Your task to perform on an android device: move a message to another label in the gmail app Image 0: 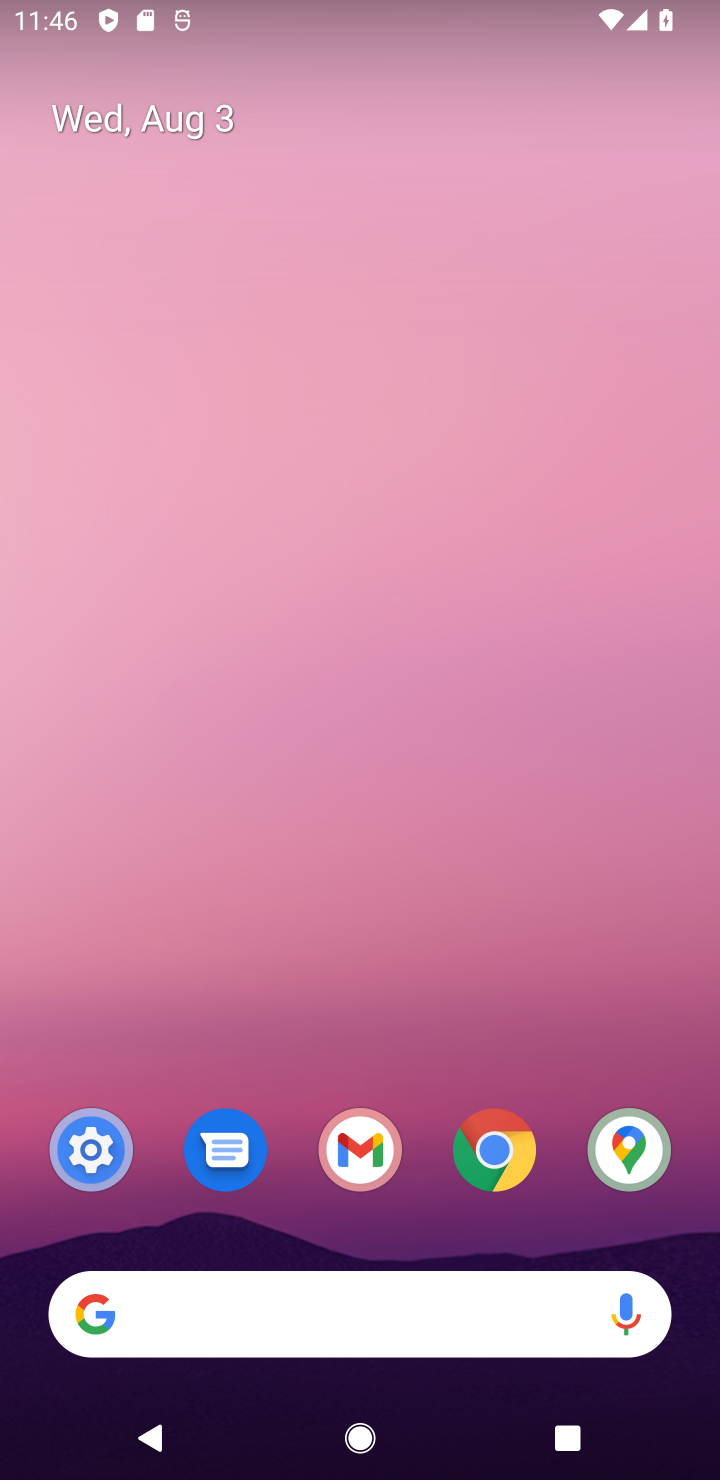
Step 0: drag from (569, 952) to (571, 164)
Your task to perform on an android device: move a message to another label in the gmail app Image 1: 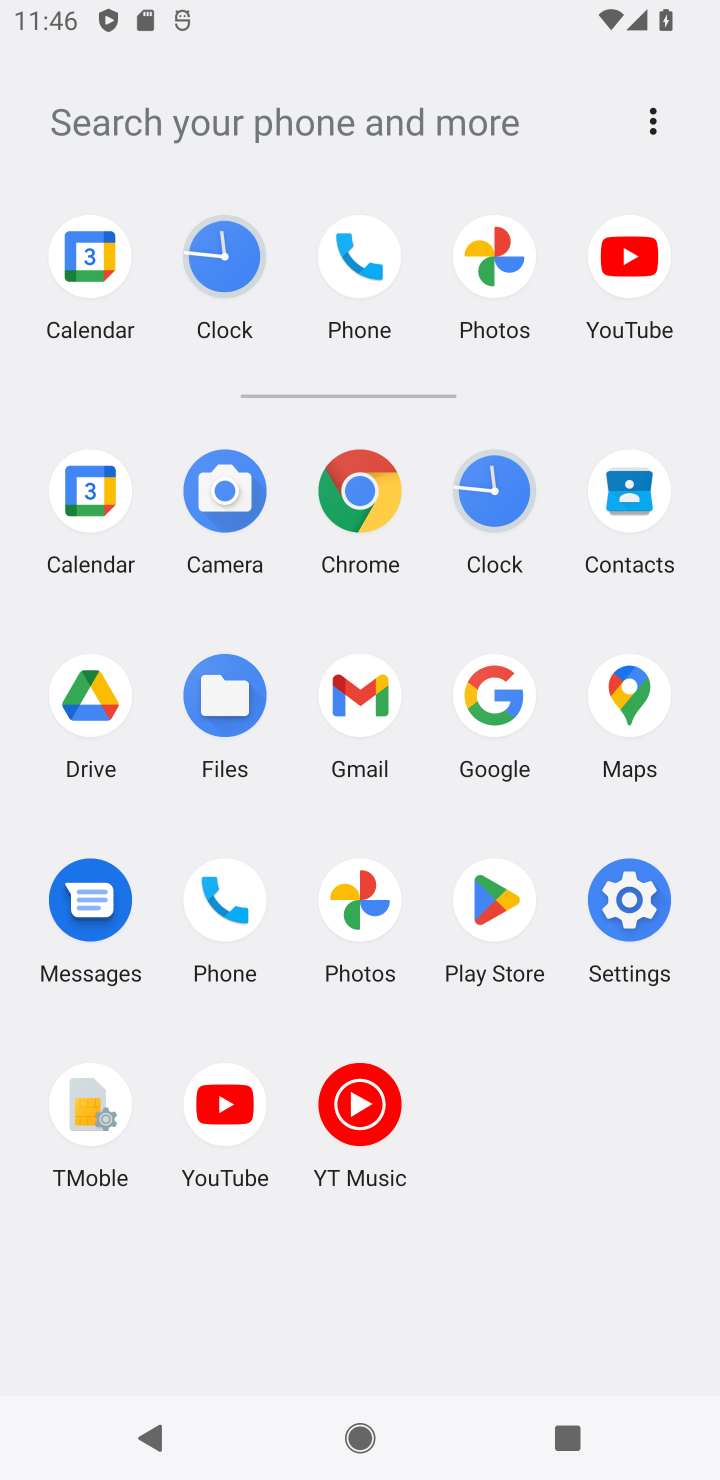
Step 1: click (354, 692)
Your task to perform on an android device: move a message to another label in the gmail app Image 2: 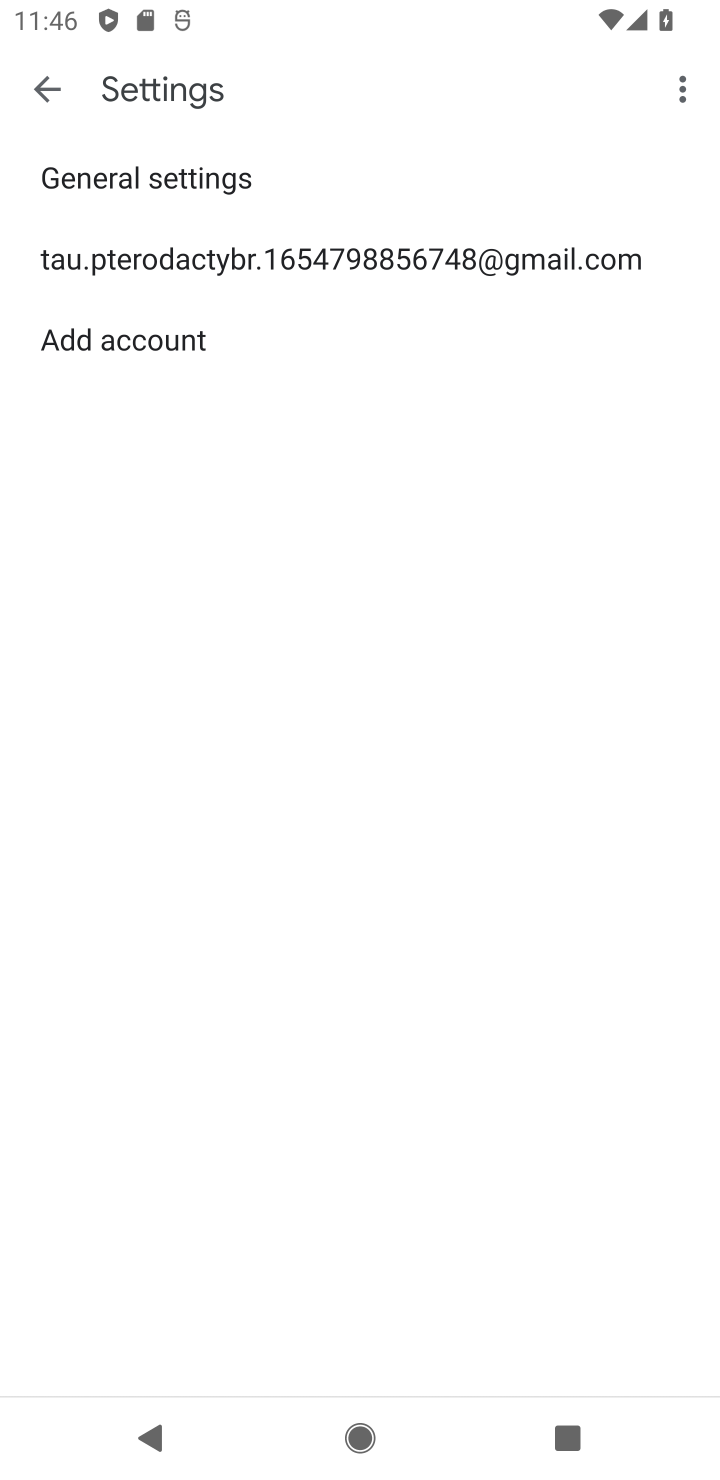
Step 2: press back button
Your task to perform on an android device: move a message to another label in the gmail app Image 3: 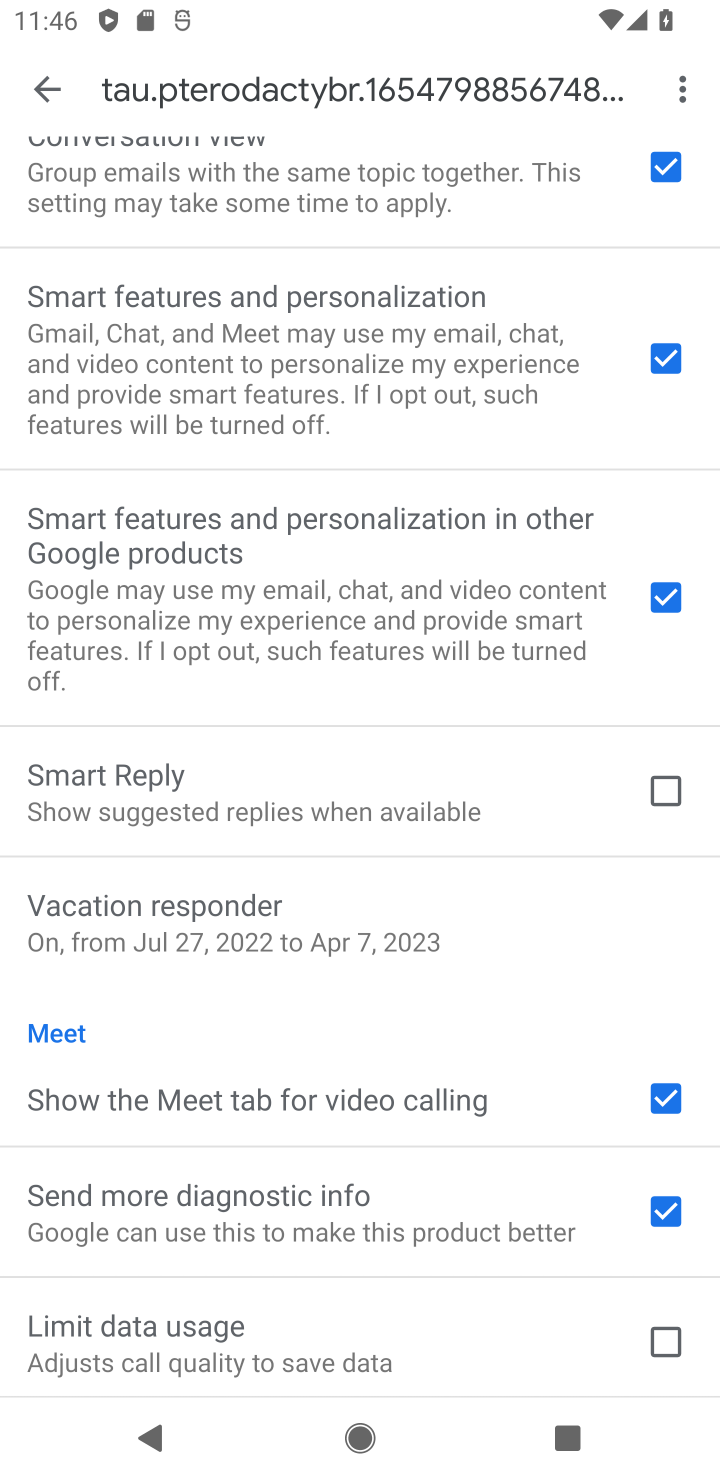
Step 3: press back button
Your task to perform on an android device: move a message to another label in the gmail app Image 4: 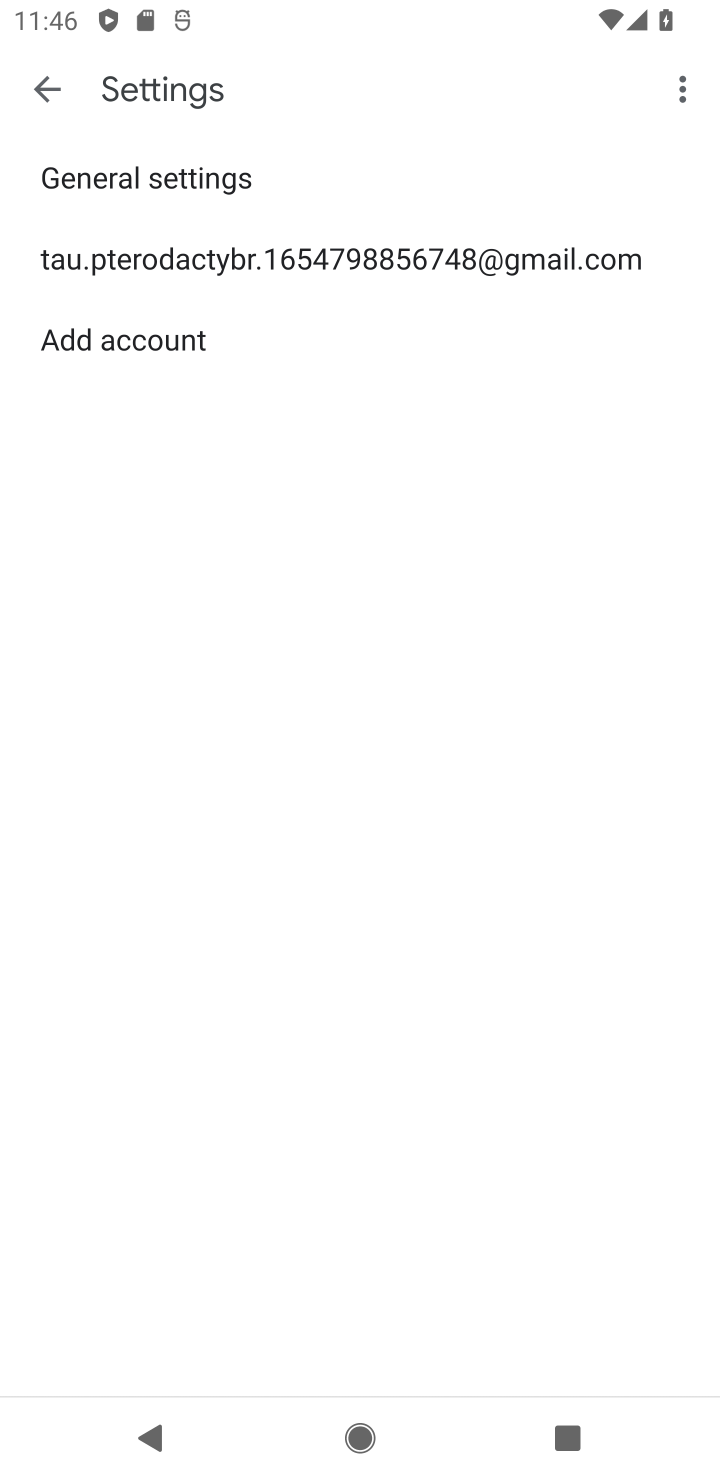
Step 4: press back button
Your task to perform on an android device: move a message to another label in the gmail app Image 5: 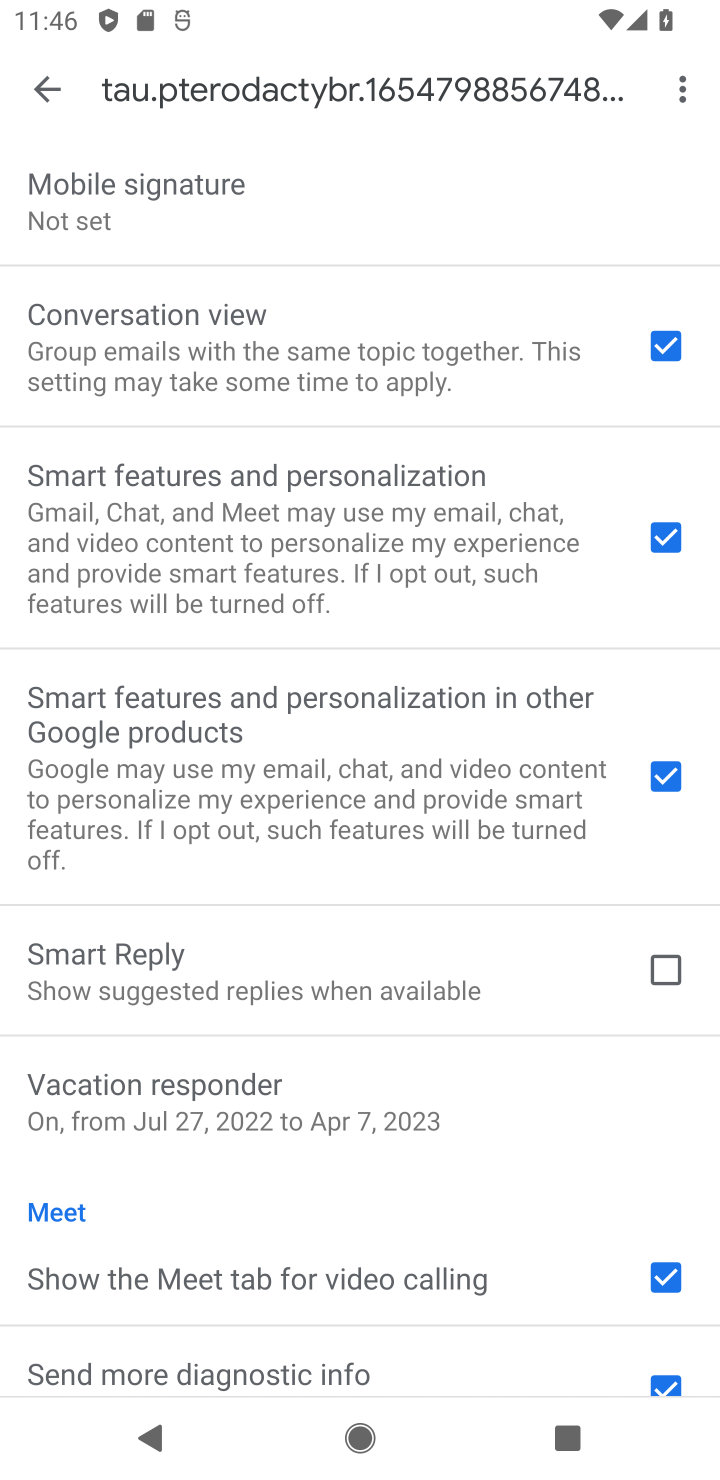
Step 5: press back button
Your task to perform on an android device: move a message to another label in the gmail app Image 6: 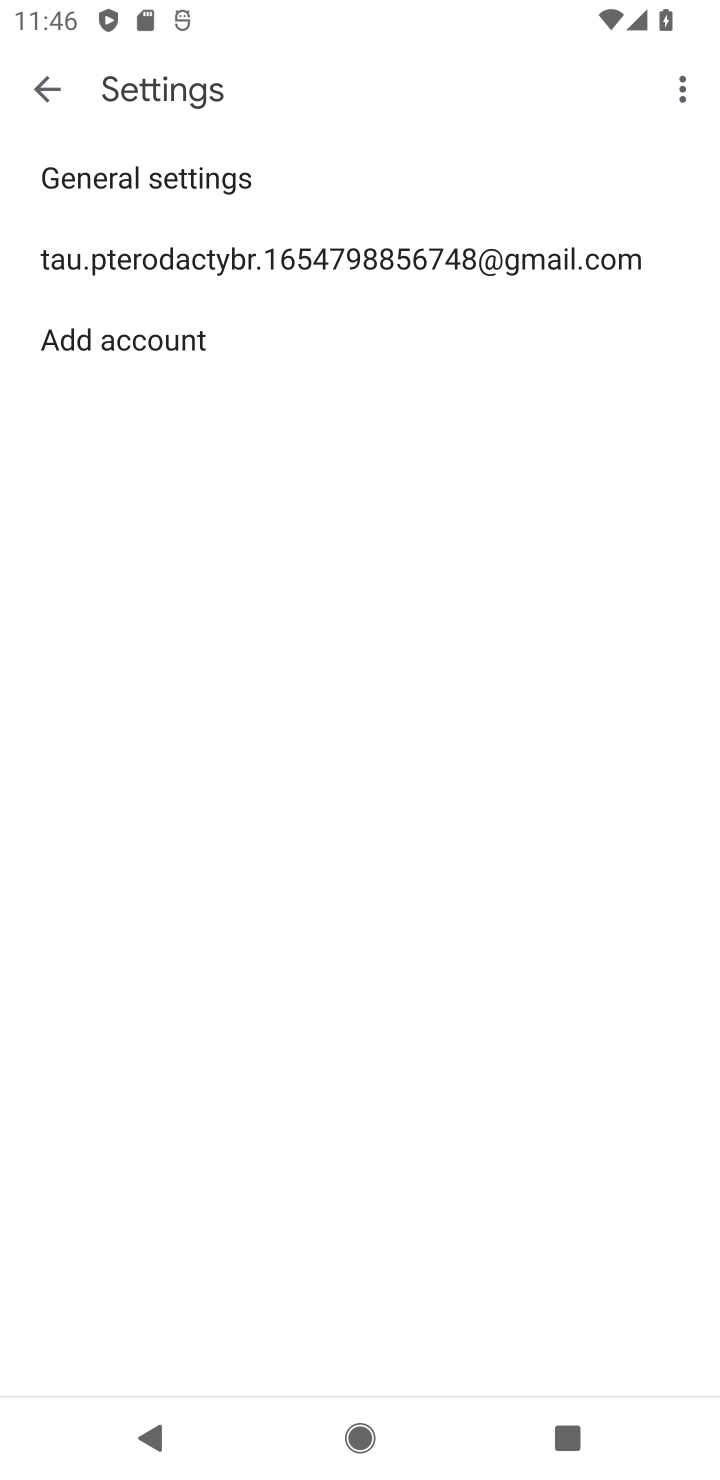
Step 6: click (50, 81)
Your task to perform on an android device: move a message to another label in the gmail app Image 7: 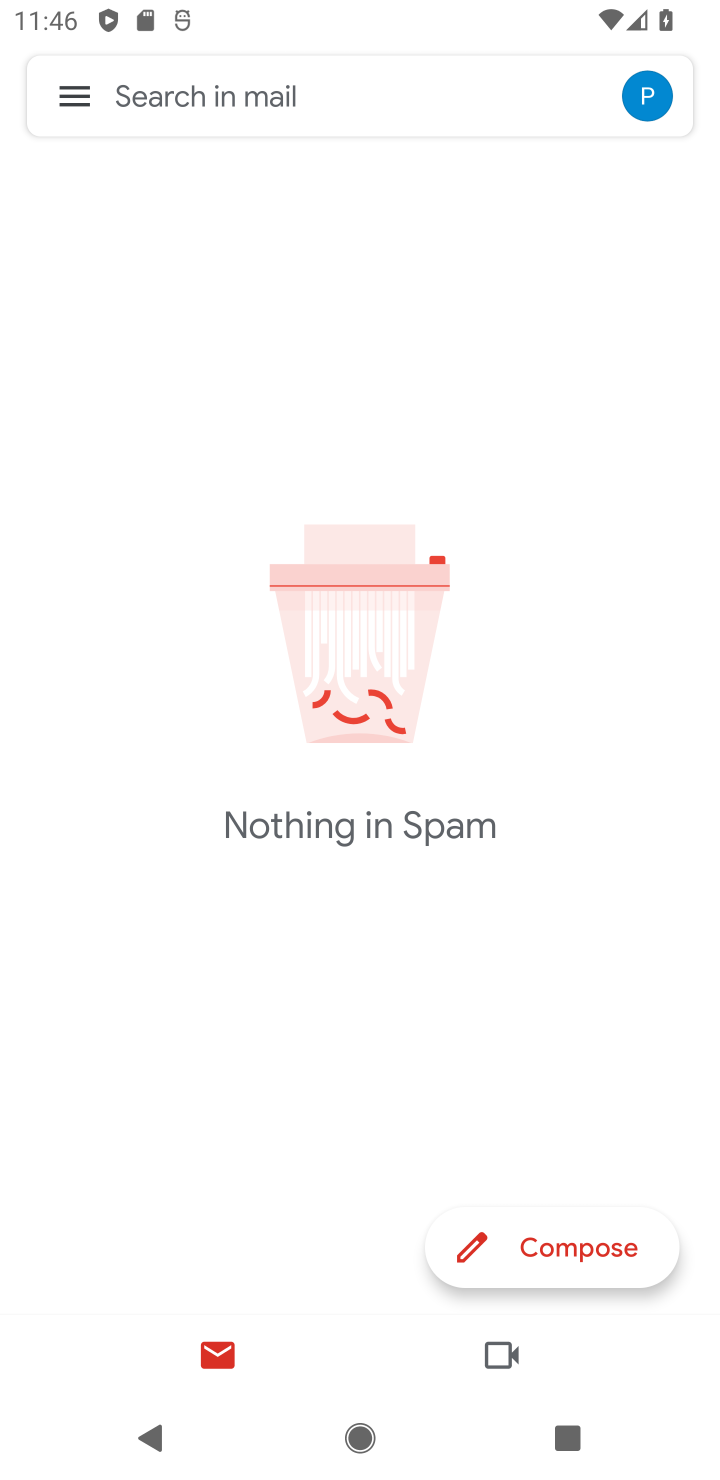
Step 7: click (81, 85)
Your task to perform on an android device: move a message to another label in the gmail app Image 8: 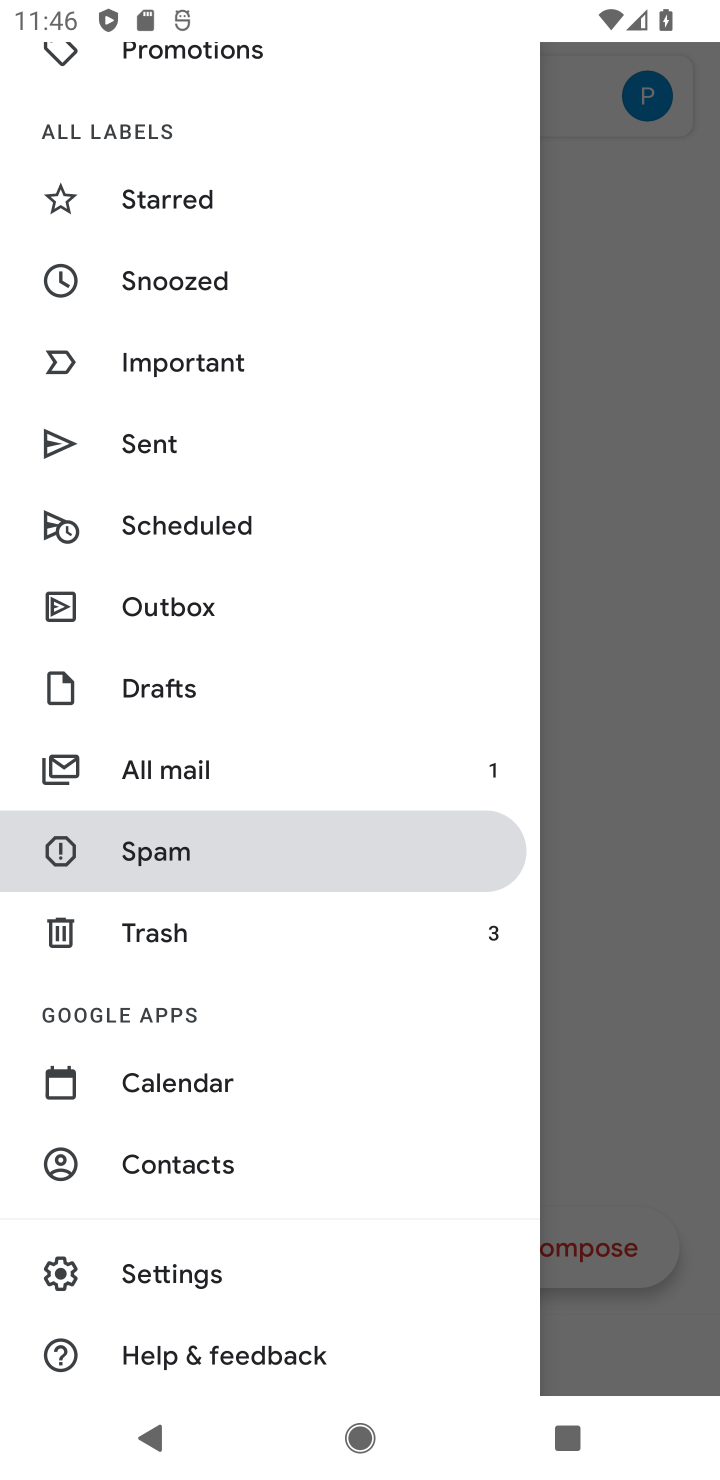
Step 8: task complete